Your task to perform on an android device: turn notification dots on Image 0: 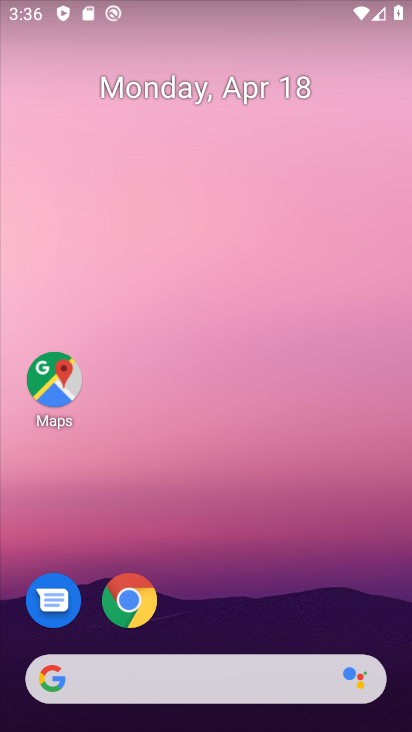
Step 0: click (246, 100)
Your task to perform on an android device: turn notification dots on Image 1: 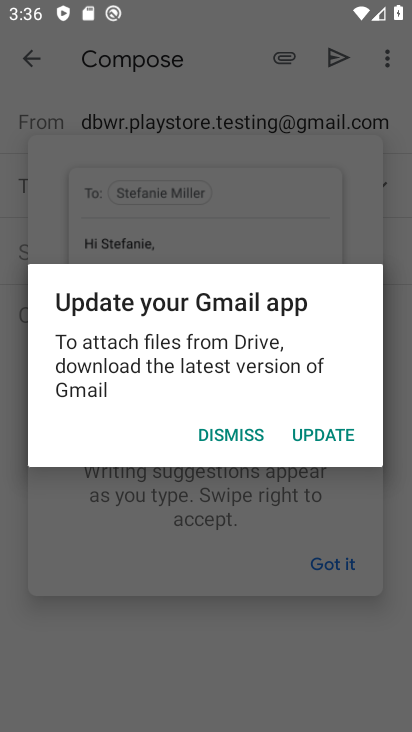
Step 1: press back button
Your task to perform on an android device: turn notification dots on Image 2: 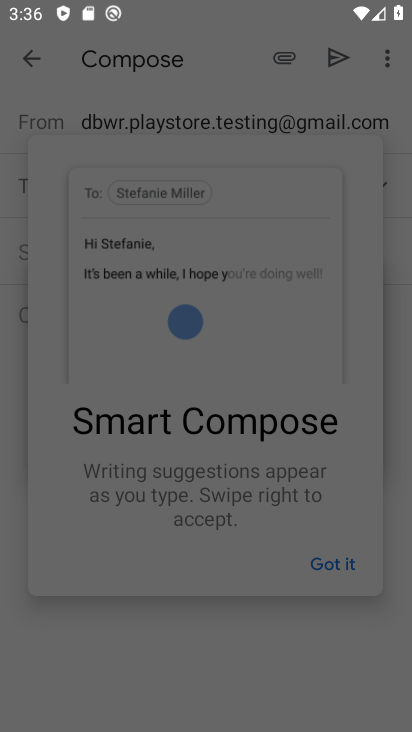
Step 2: press home button
Your task to perform on an android device: turn notification dots on Image 3: 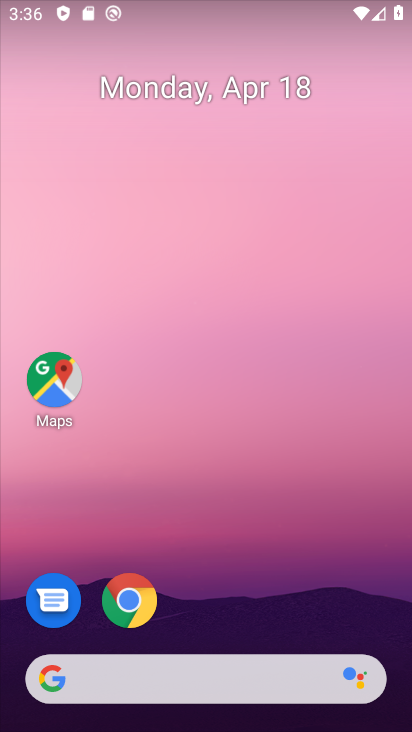
Step 3: drag from (197, 716) to (261, 129)
Your task to perform on an android device: turn notification dots on Image 4: 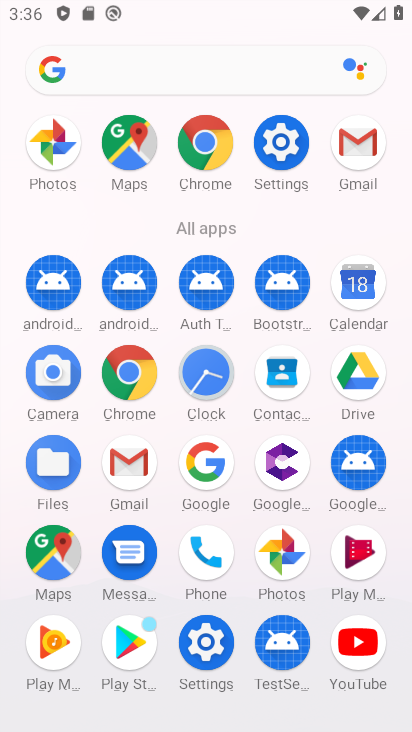
Step 4: click (228, 67)
Your task to perform on an android device: turn notification dots on Image 5: 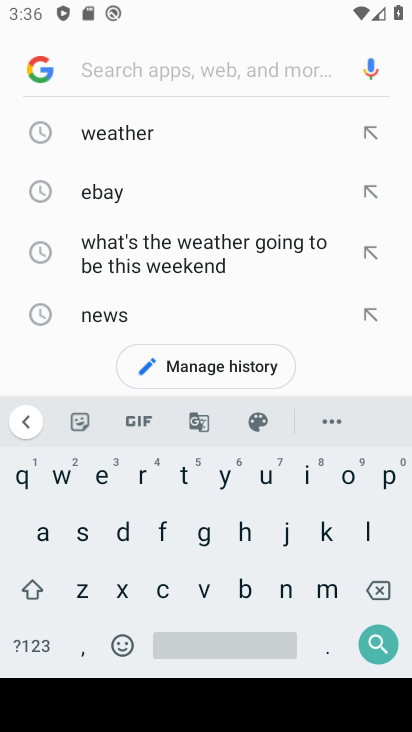
Step 5: press home button
Your task to perform on an android device: turn notification dots on Image 6: 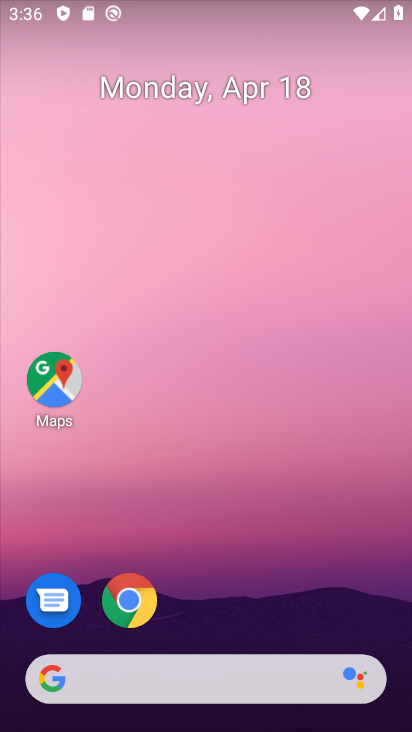
Step 6: drag from (299, 721) to (260, 200)
Your task to perform on an android device: turn notification dots on Image 7: 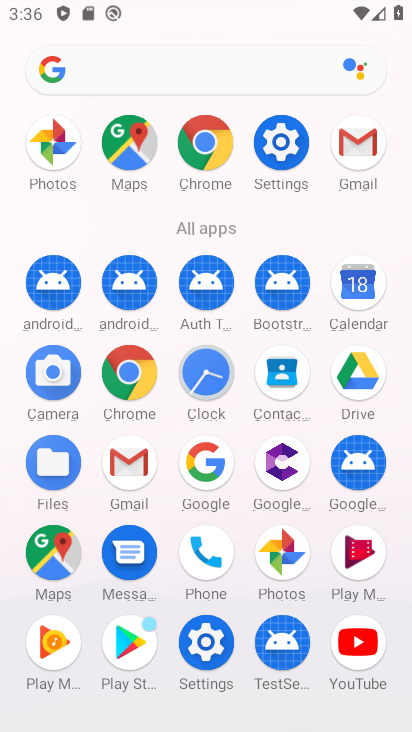
Step 7: click (279, 164)
Your task to perform on an android device: turn notification dots on Image 8: 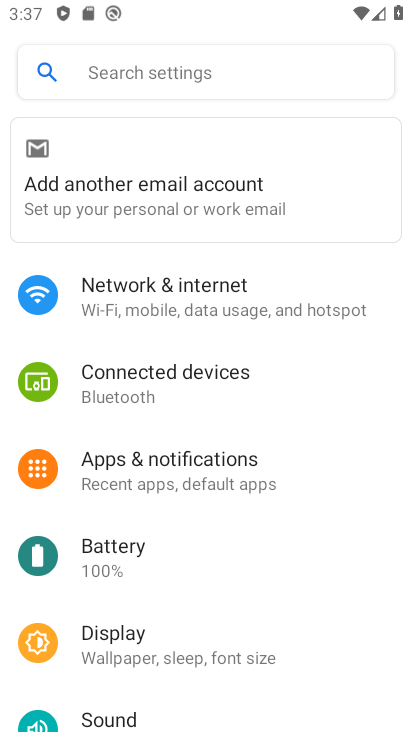
Step 8: click (229, 77)
Your task to perform on an android device: turn notification dots on Image 9: 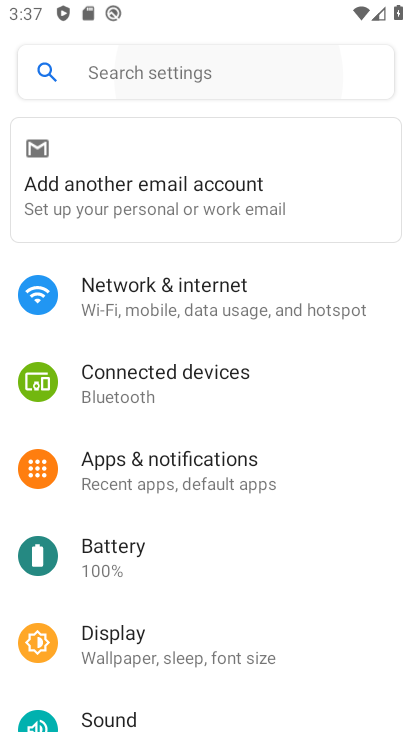
Step 9: click (229, 77)
Your task to perform on an android device: turn notification dots on Image 10: 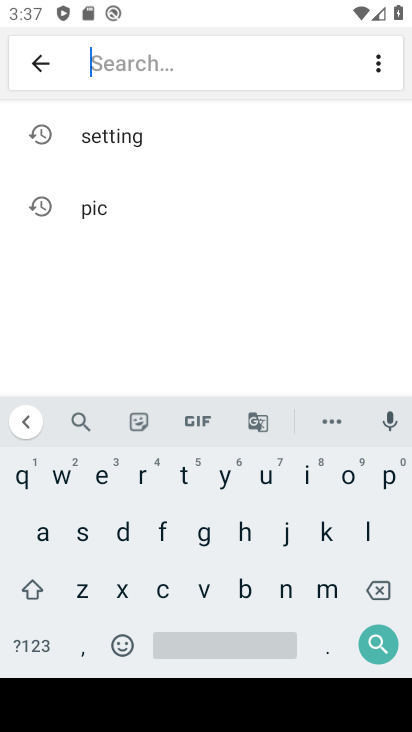
Step 10: click (124, 539)
Your task to perform on an android device: turn notification dots on Image 11: 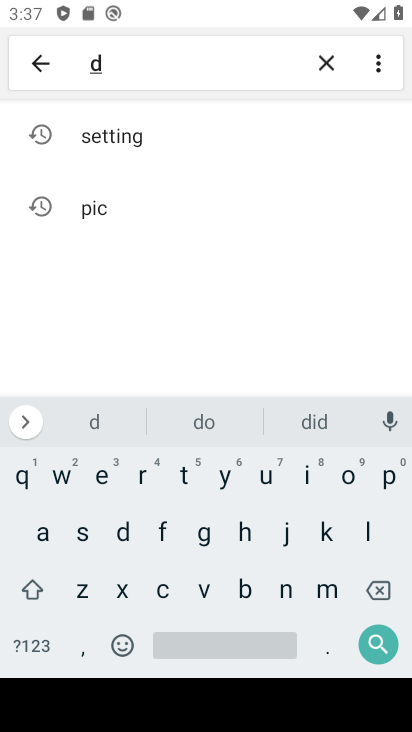
Step 11: click (340, 476)
Your task to perform on an android device: turn notification dots on Image 12: 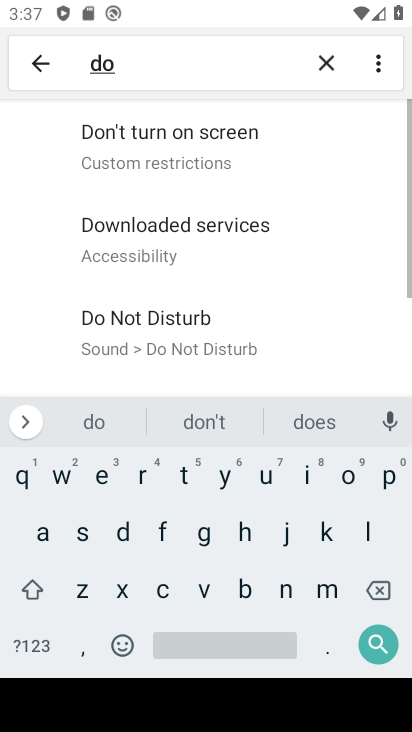
Step 12: click (183, 472)
Your task to perform on an android device: turn notification dots on Image 13: 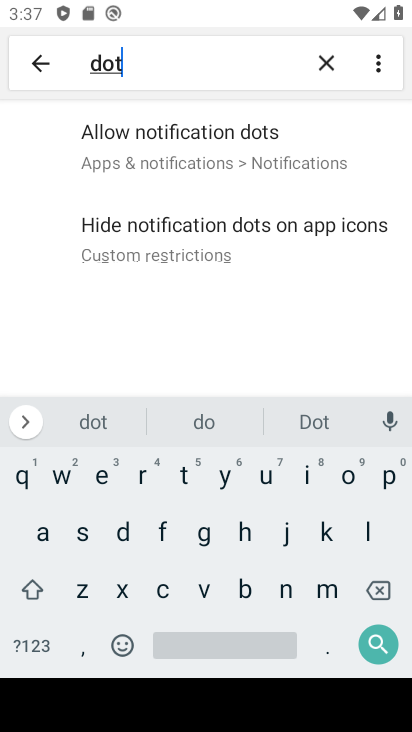
Step 13: click (194, 130)
Your task to perform on an android device: turn notification dots on Image 14: 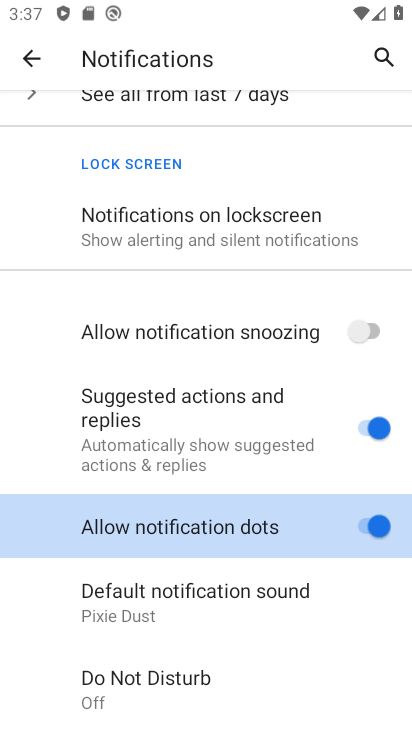
Step 14: click (170, 542)
Your task to perform on an android device: turn notification dots on Image 15: 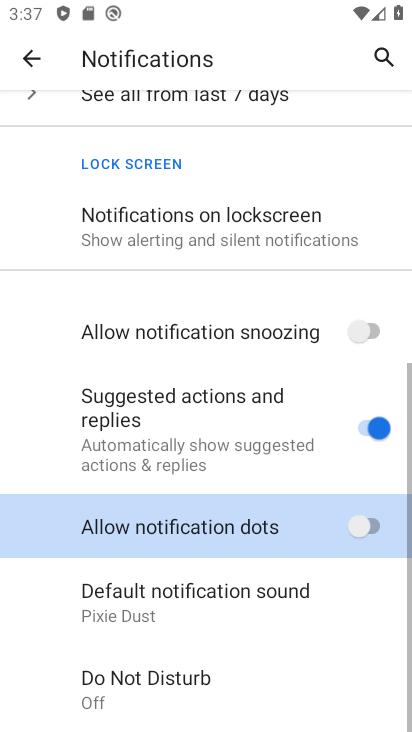
Step 15: click (370, 363)
Your task to perform on an android device: turn notification dots on Image 16: 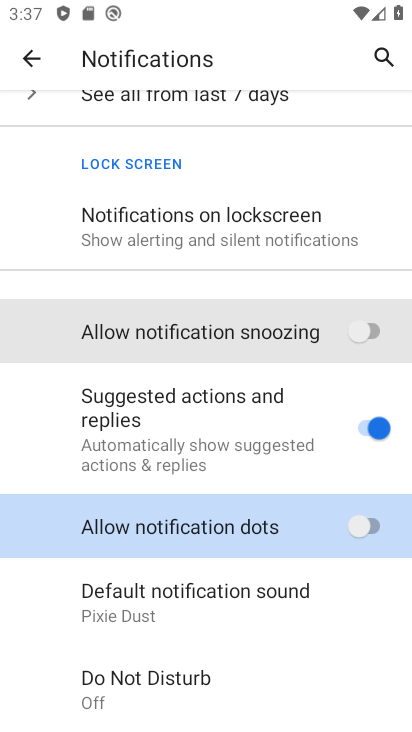
Step 16: task complete